Your task to perform on an android device: delete a single message in the gmail app Image 0: 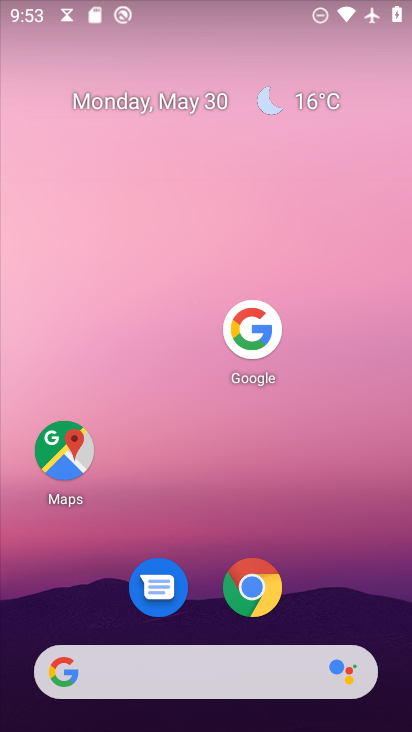
Step 0: drag from (194, 667) to (245, 280)
Your task to perform on an android device: delete a single message in the gmail app Image 1: 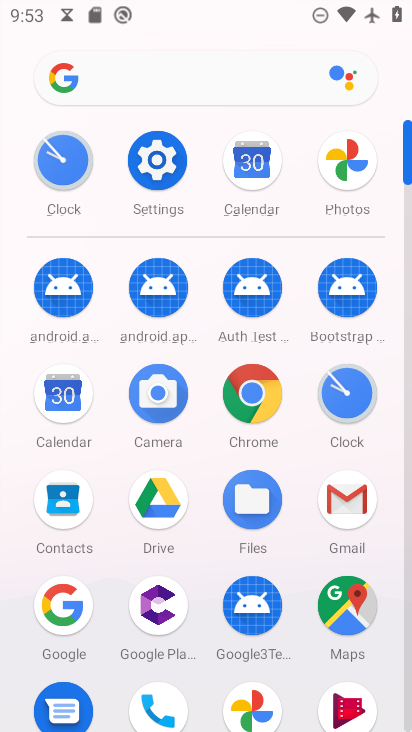
Step 1: click (340, 508)
Your task to perform on an android device: delete a single message in the gmail app Image 2: 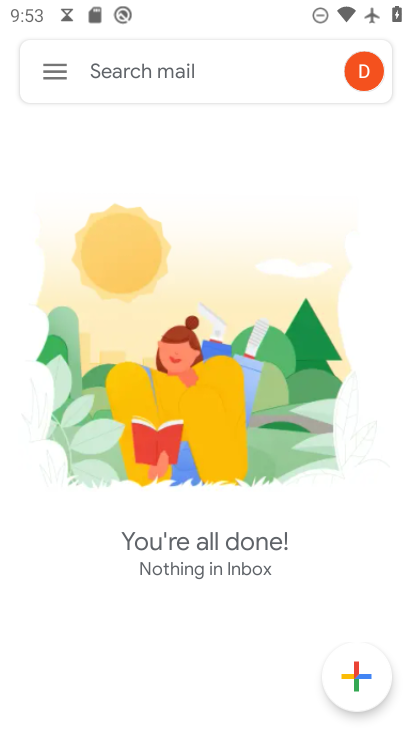
Step 2: task complete